Your task to perform on an android device: What's on my calendar tomorrow? Image 0: 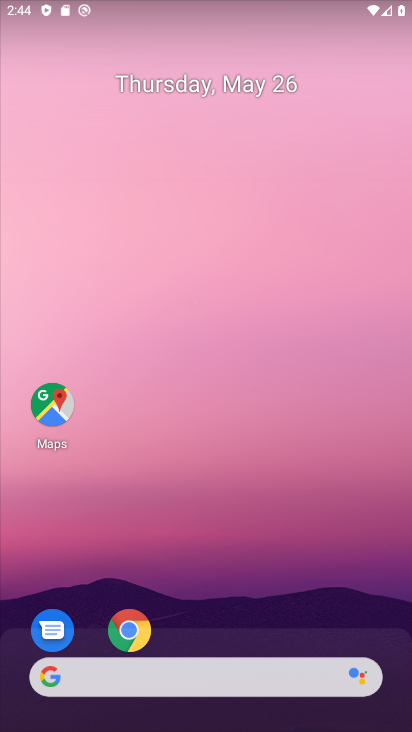
Step 0: drag from (255, 610) to (236, 66)
Your task to perform on an android device: What's on my calendar tomorrow? Image 1: 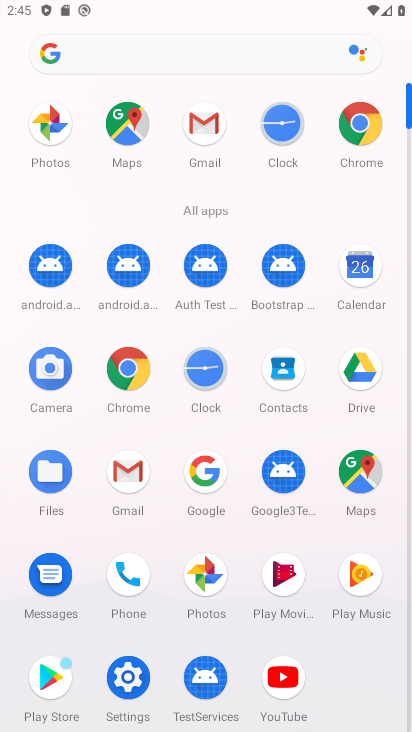
Step 1: click (359, 266)
Your task to perform on an android device: What's on my calendar tomorrow? Image 2: 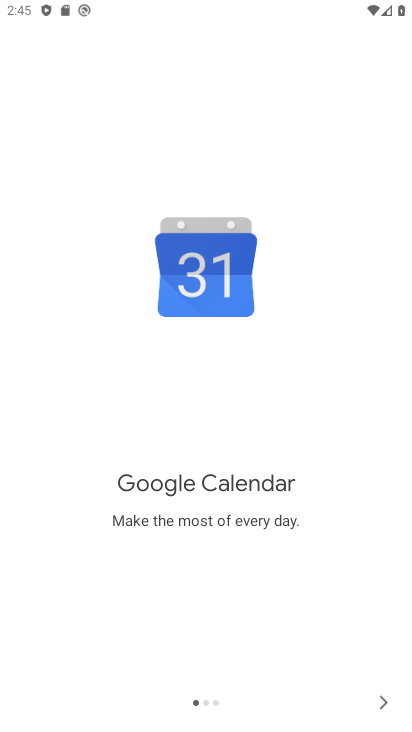
Step 2: click (386, 703)
Your task to perform on an android device: What's on my calendar tomorrow? Image 3: 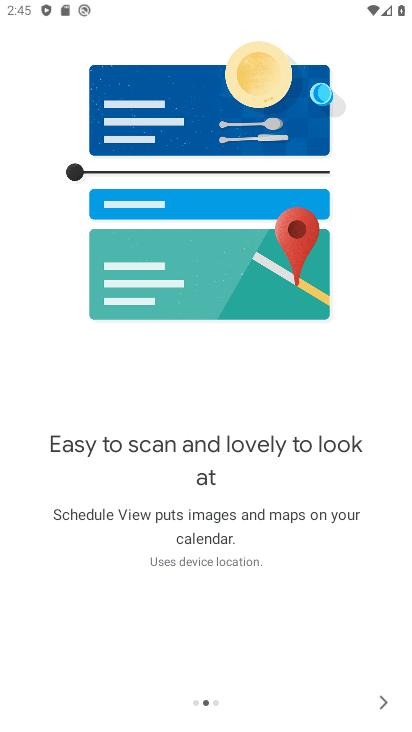
Step 3: click (386, 703)
Your task to perform on an android device: What's on my calendar tomorrow? Image 4: 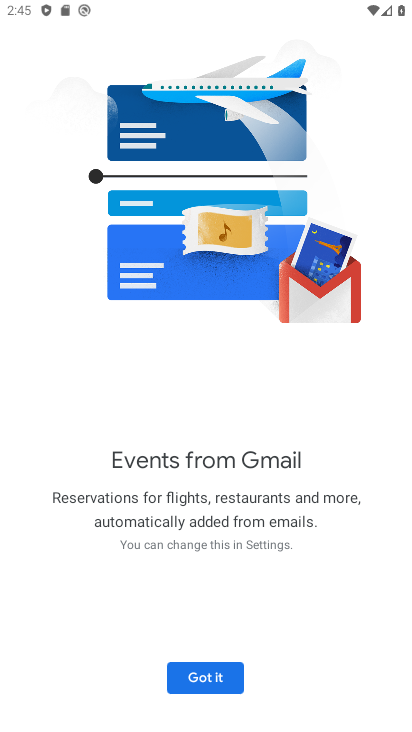
Step 4: click (206, 675)
Your task to perform on an android device: What's on my calendar tomorrow? Image 5: 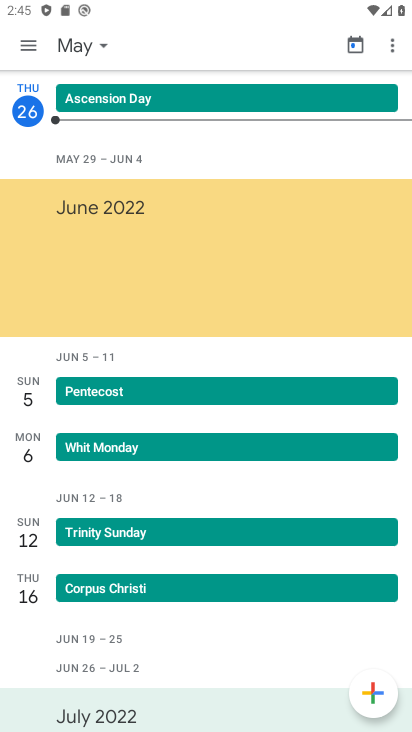
Step 5: click (99, 43)
Your task to perform on an android device: What's on my calendar tomorrow? Image 6: 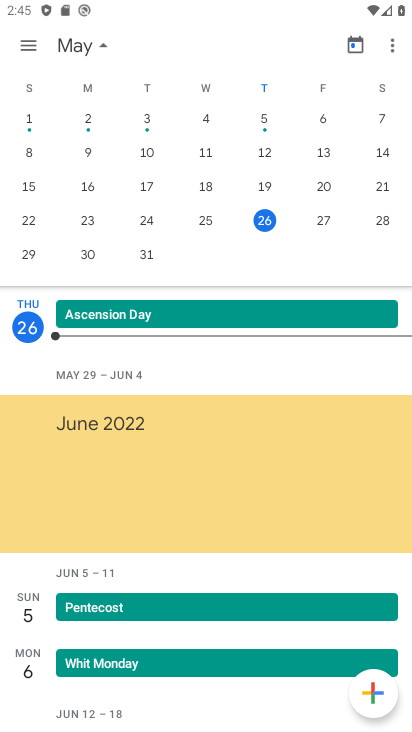
Step 6: click (321, 220)
Your task to perform on an android device: What's on my calendar tomorrow? Image 7: 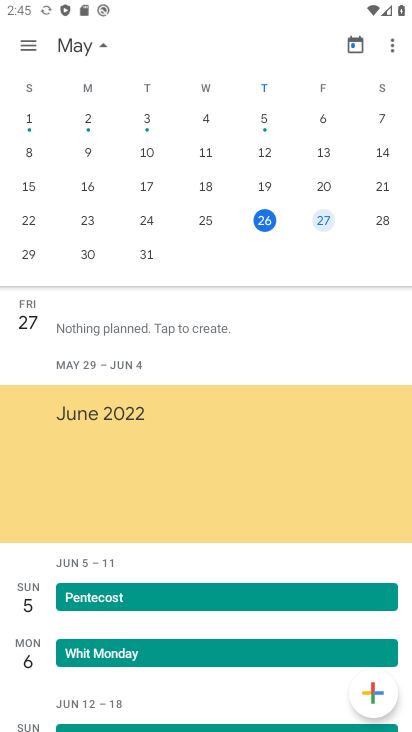
Step 7: click (31, 49)
Your task to perform on an android device: What's on my calendar tomorrow? Image 8: 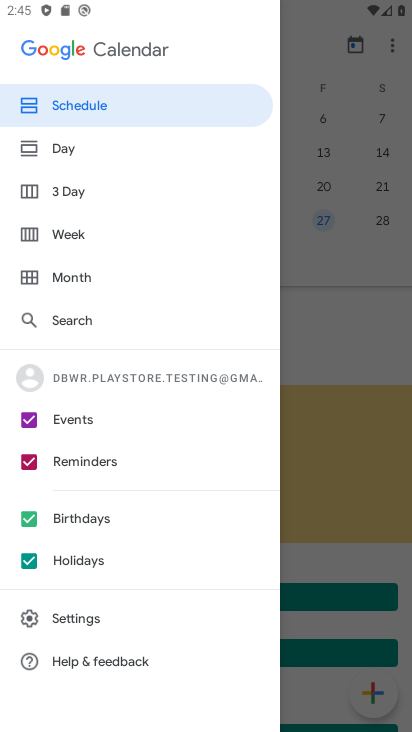
Step 8: click (97, 103)
Your task to perform on an android device: What's on my calendar tomorrow? Image 9: 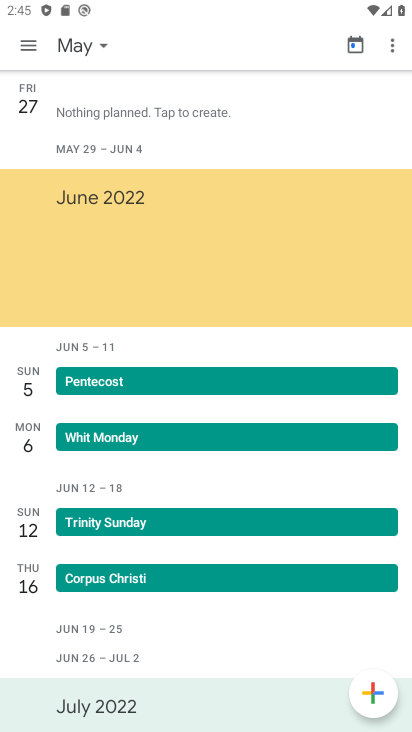
Step 9: task complete